Your task to perform on an android device: Add logitech g502 to the cart on amazon.com, then select checkout. Image 0: 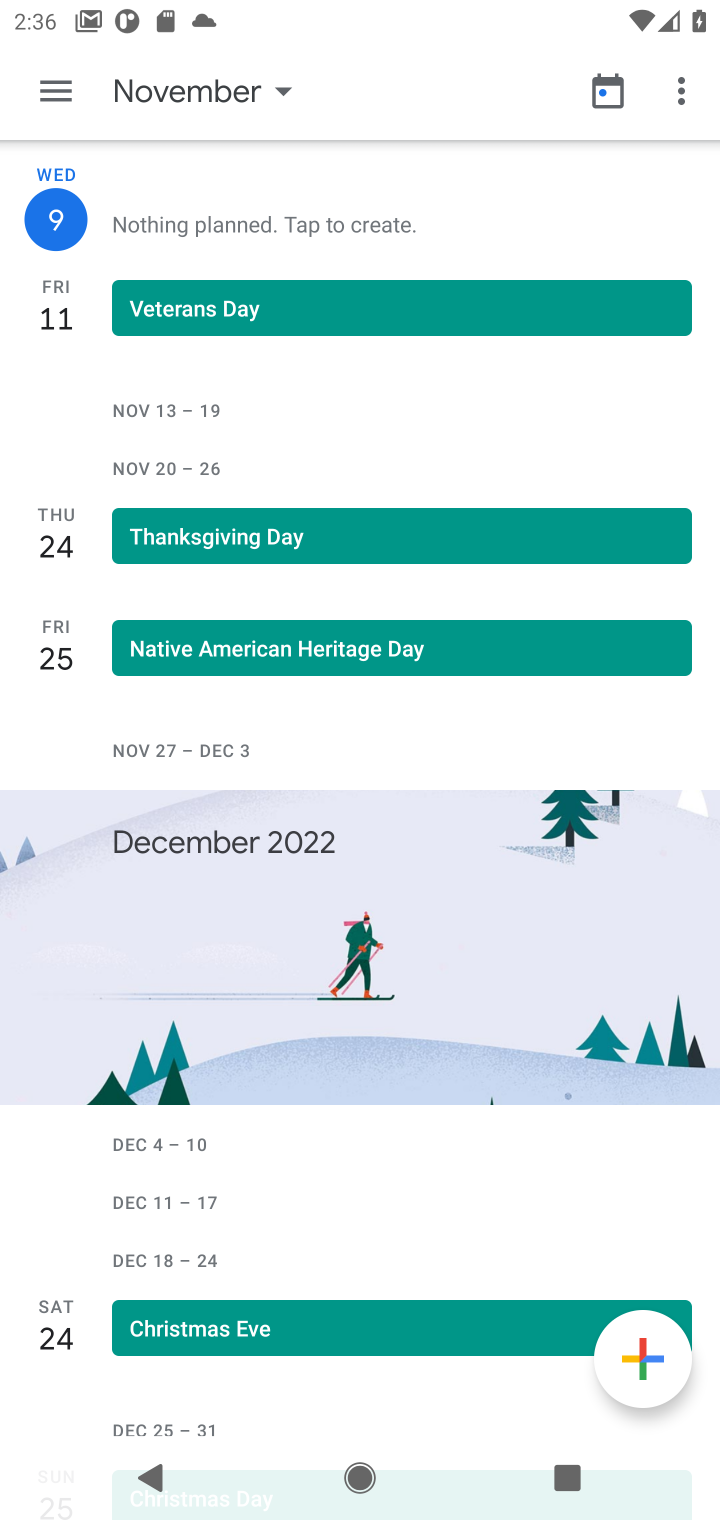
Step 0: press home button
Your task to perform on an android device: Add logitech g502 to the cart on amazon.com, then select checkout. Image 1: 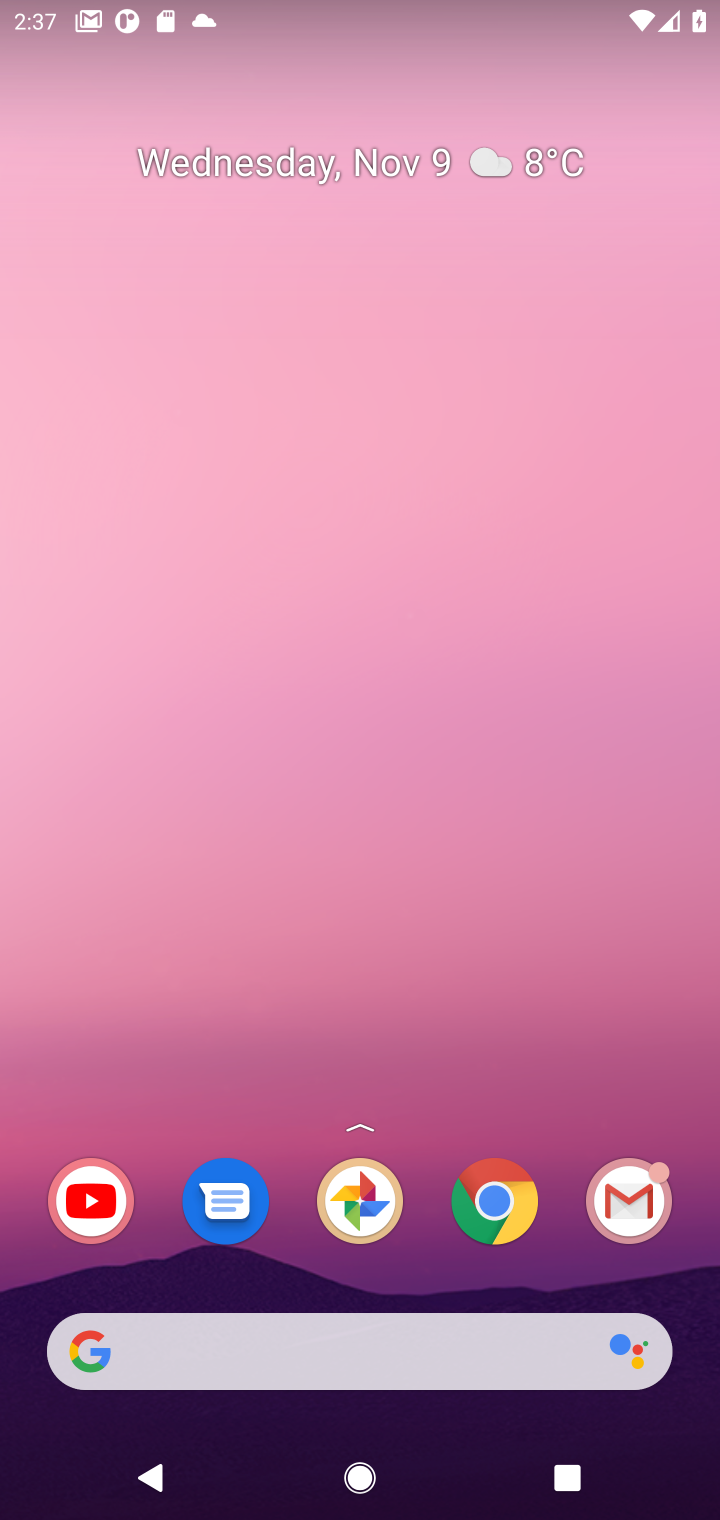
Step 1: click (354, 1333)
Your task to perform on an android device: Add logitech g502 to the cart on amazon.com, then select checkout. Image 2: 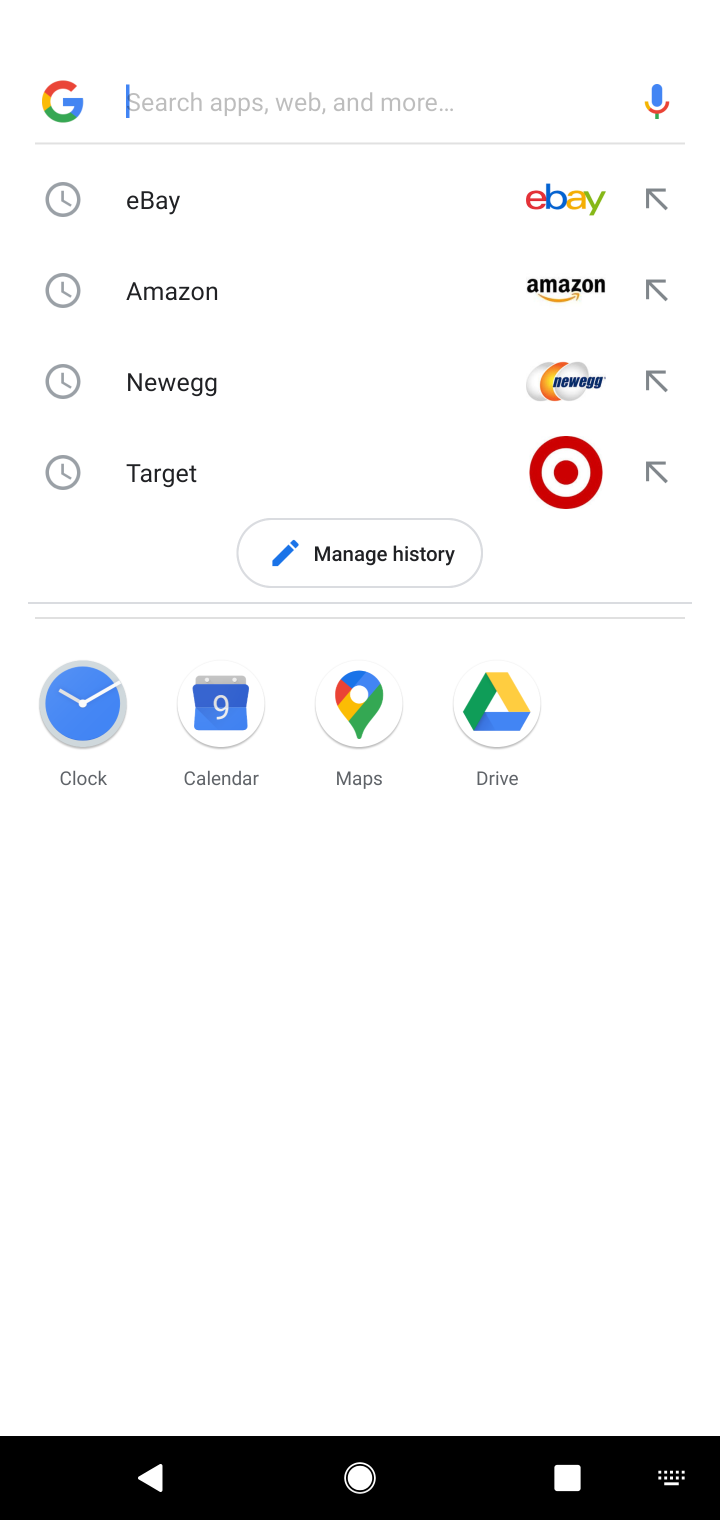
Step 2: click (450, 290)
Your task to perform on an android device: Add logitech g502 to the cart on amazon.com, then select checkout. Image 3: 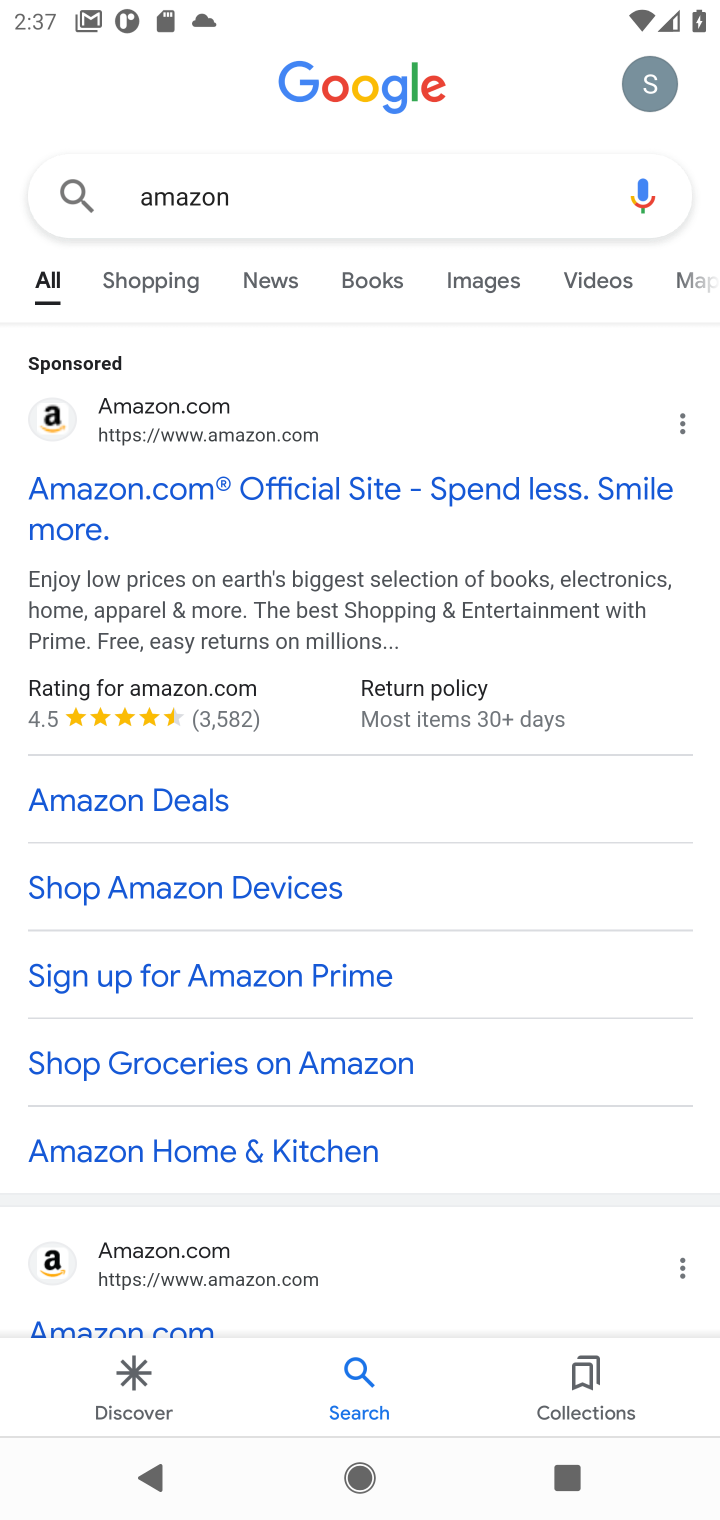
Step 3: click (123, 413)
Your task to perform on an android device: Add logitech g502 to the cart on amazon.com, then select checkout. Image 4: 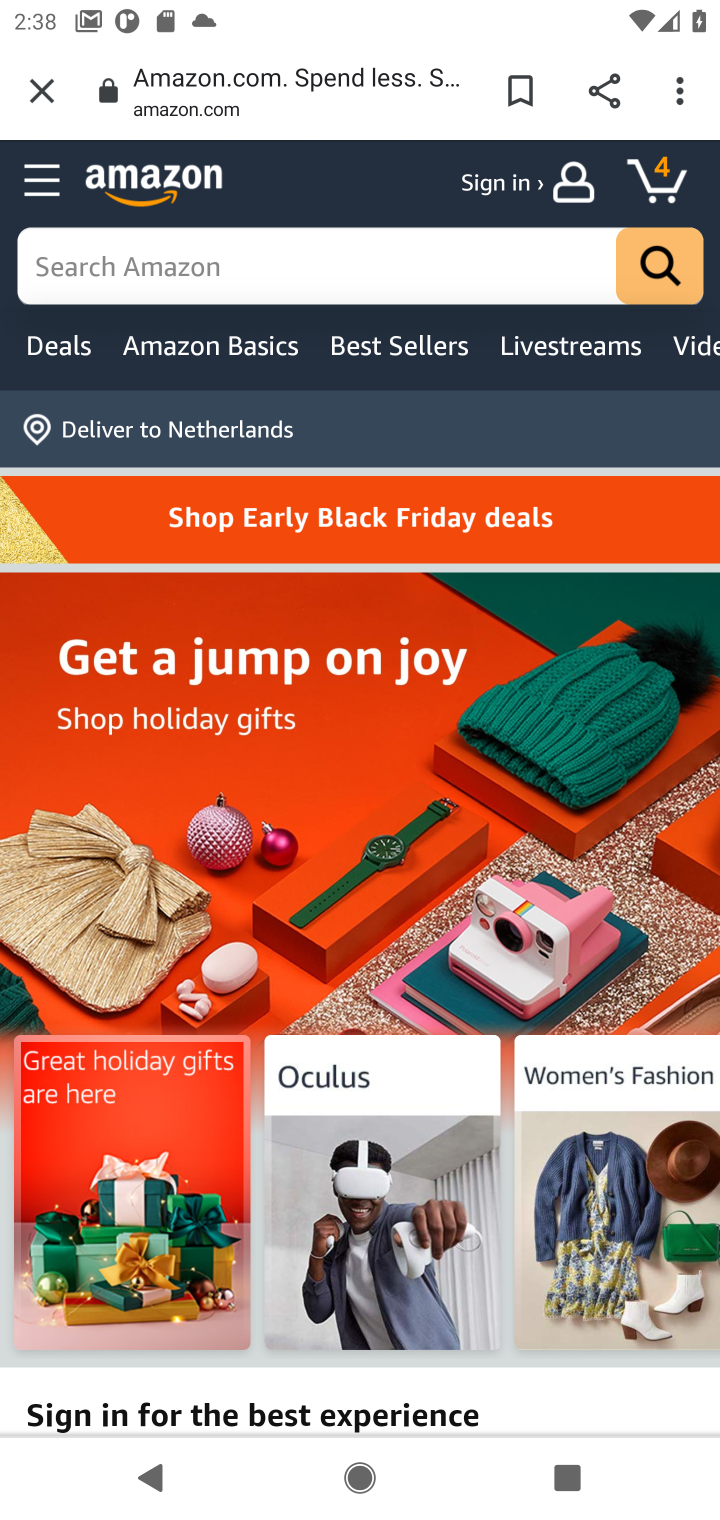
Step 4: click (329, 246)
Your task to perform on an android device: Add logitech g502 to the cart on amazon.com, then select checkout. Image 5: 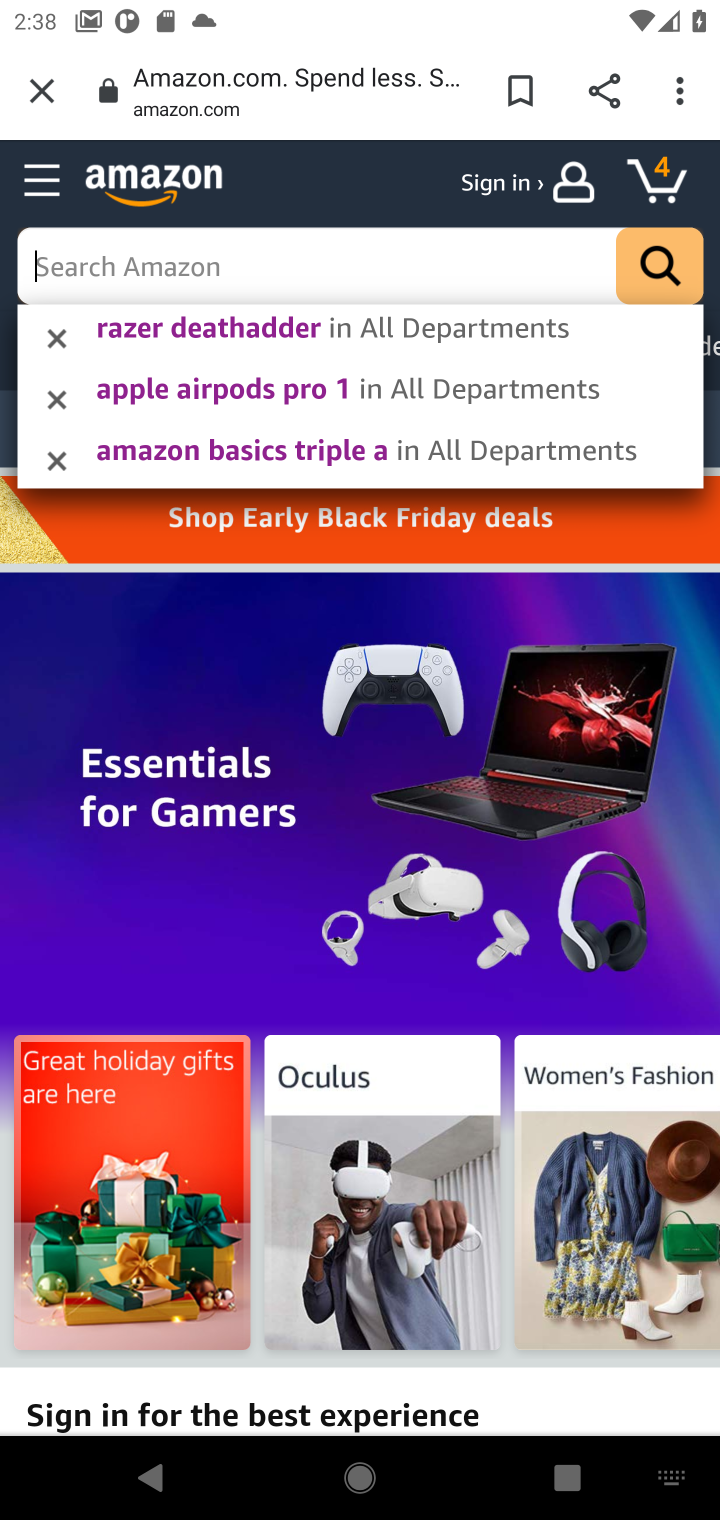
Step 5: type " logitech g502"
Your task to perform on an android device: Add logitech g502 to the cart on amazon.com, then select checkout. Image 6: 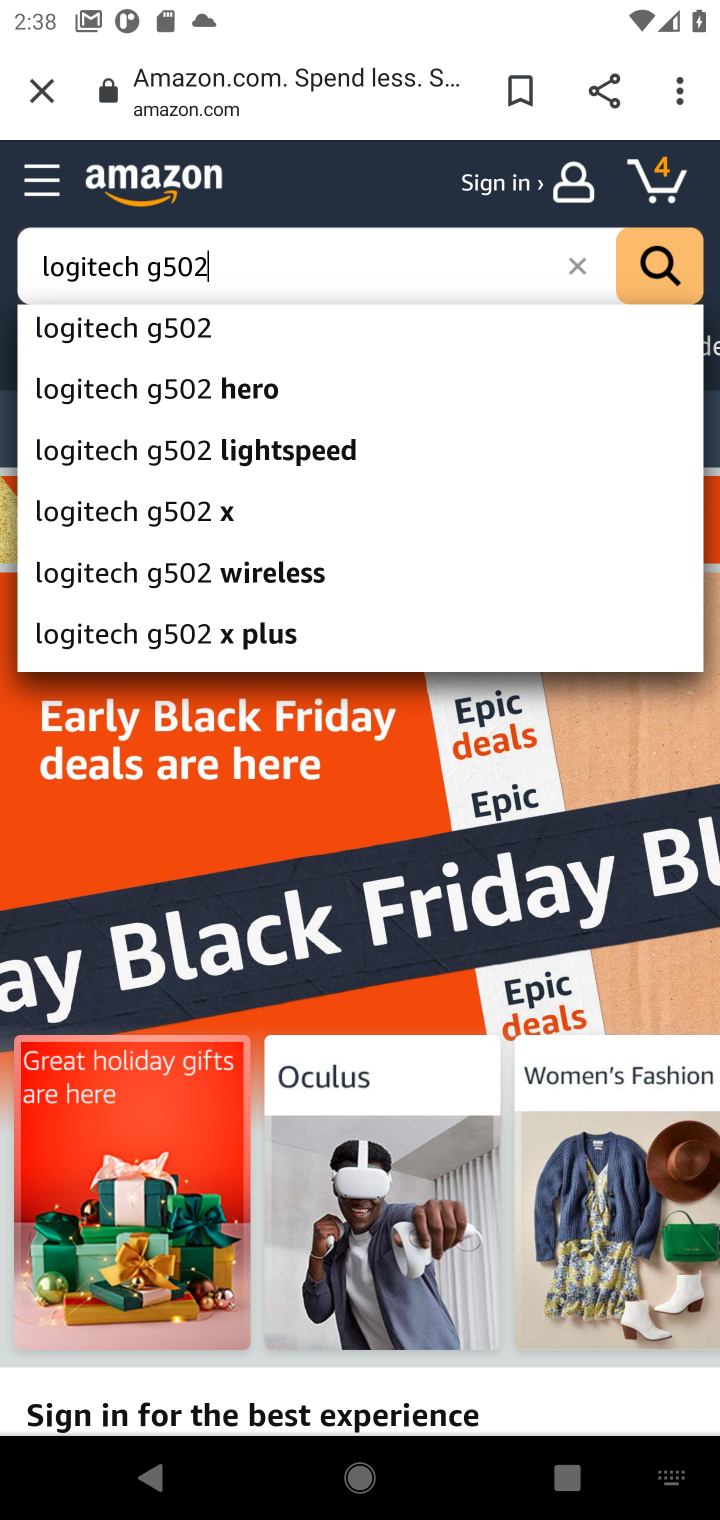
Step 6: click (186, 322)
Your task to perform on an android device: Add logitech g502 to the cart on amazon.com, then select checkout. Image 7: 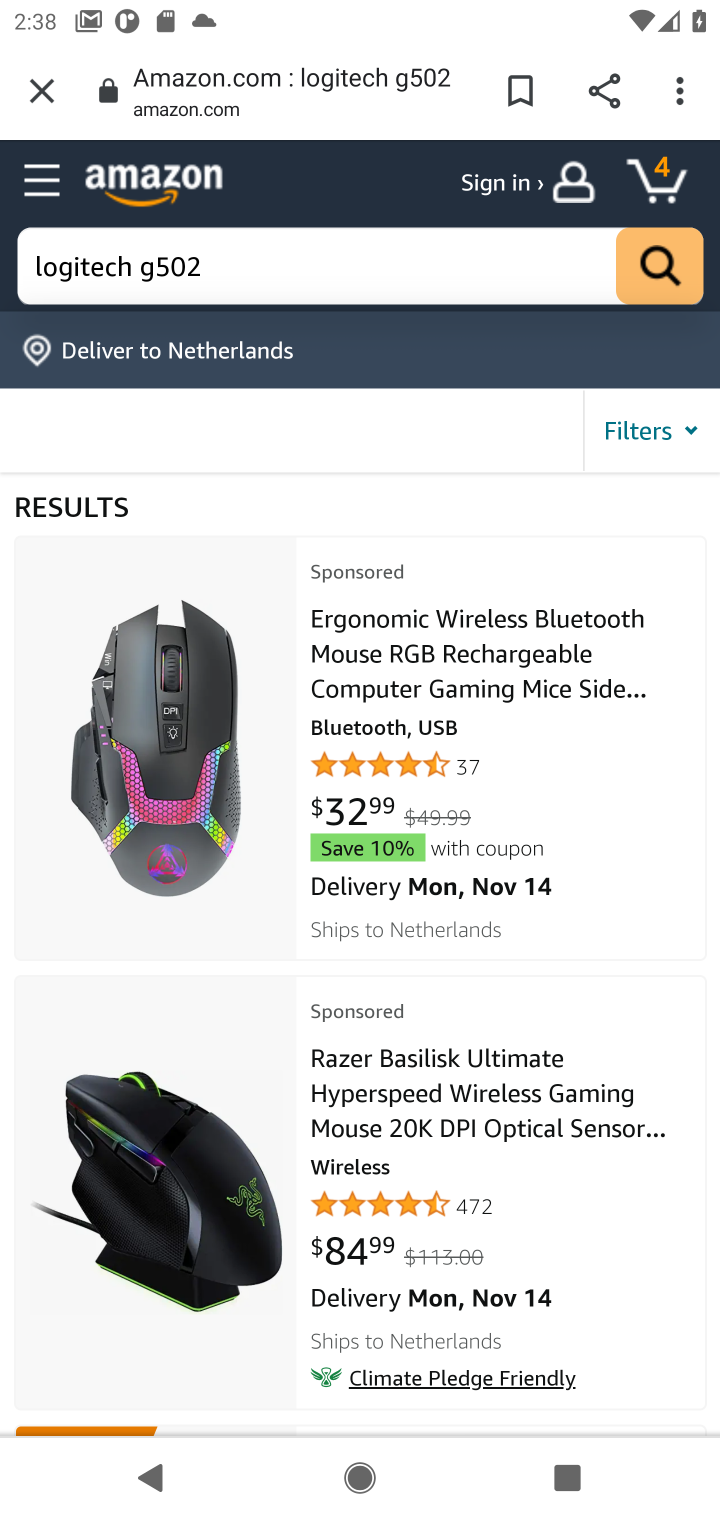
Step 7: click (245, 630)
Your task to perform on an android device: Add logitech g502 to the cart on amazon.com, then select checkout. Image 8: 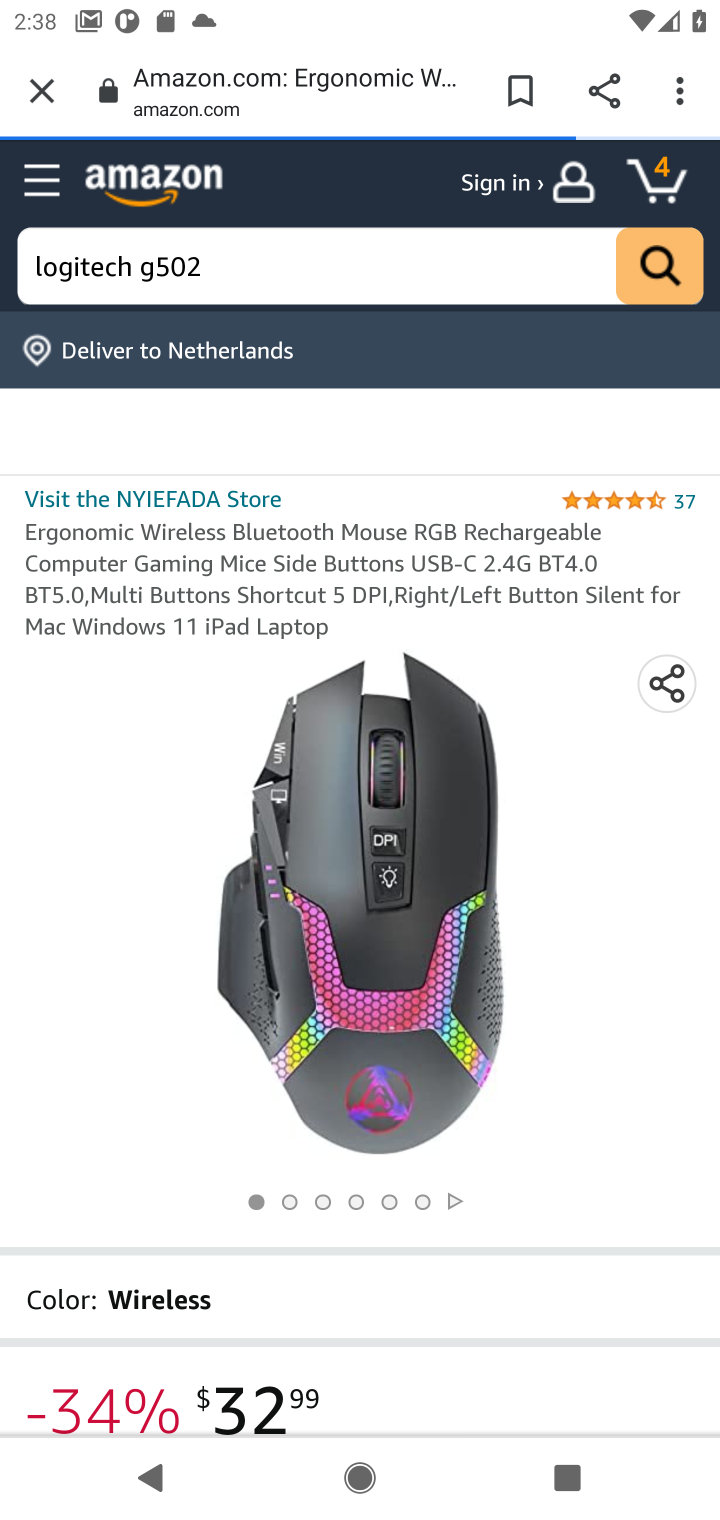
Step 8: drag from (381, 1016) to (405, 672)
Your task to perform on an android device: Add logitech g502 to the cart on amazon.com, then select checkout. Image 9: 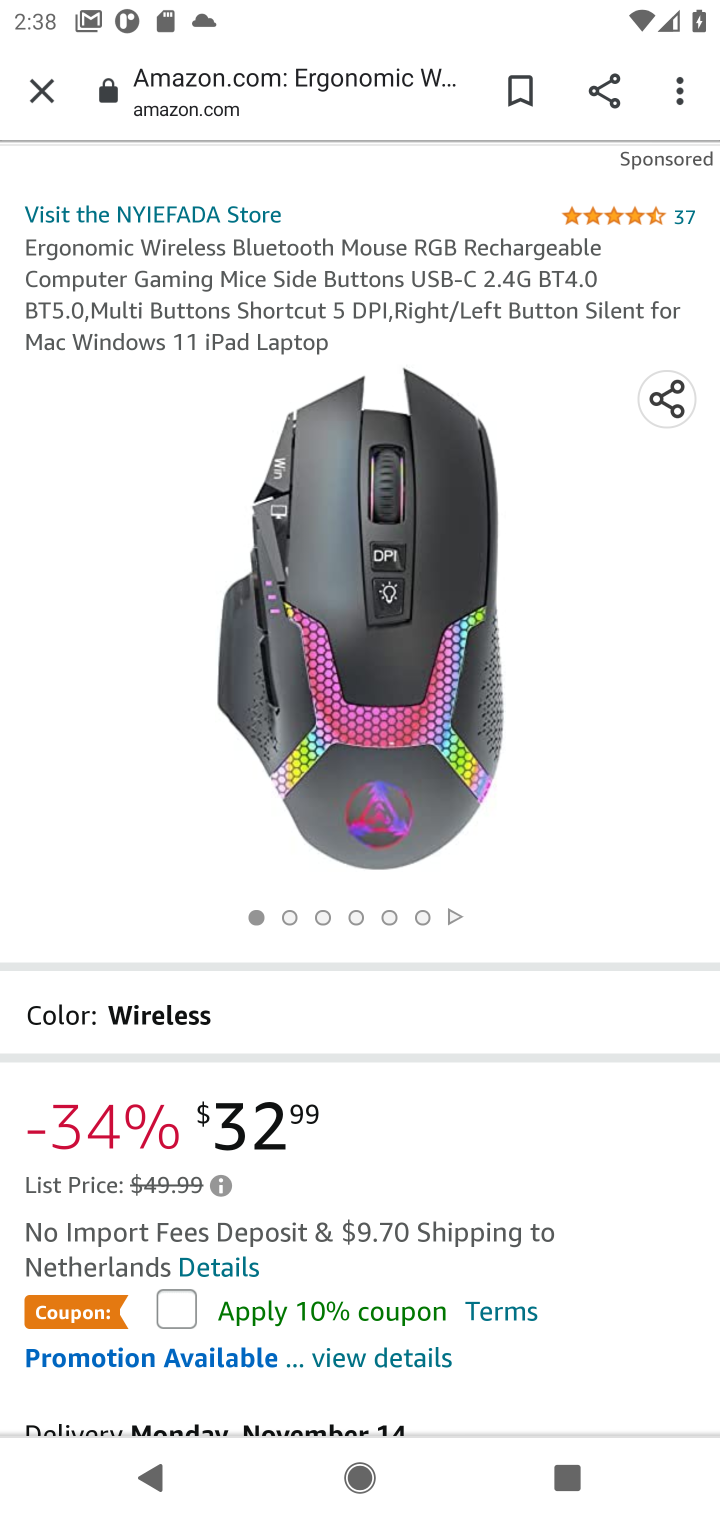
Step 9: drag from (303, 945) to (303, 569)
Your task to perform on an android device: Add logitech g502 to the cart on amazon.com, then select checkout. Image 10: 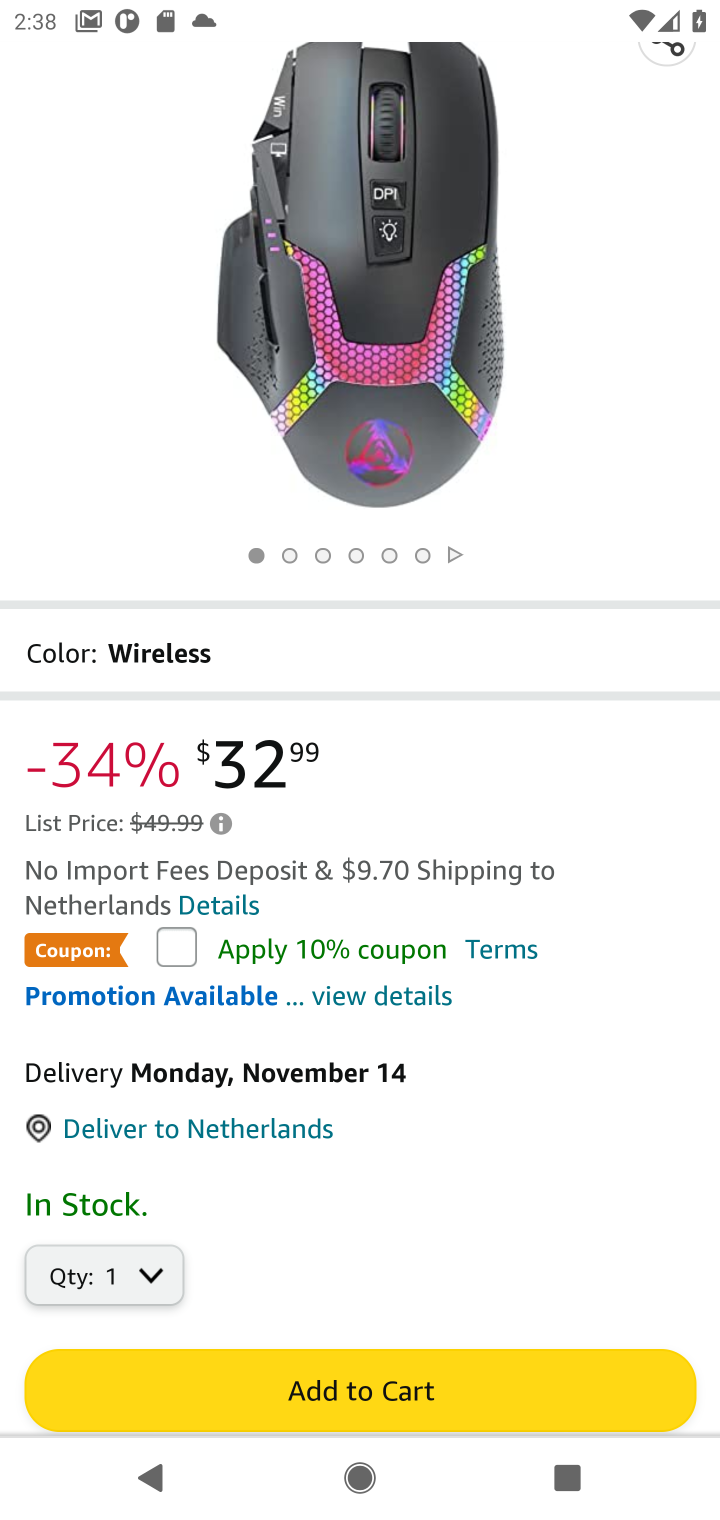
Step 10: click (381, 1392)
Your task to perform on an android device: Add logitech g502 to the cart on amazon.com, then select checkout. Image 11: 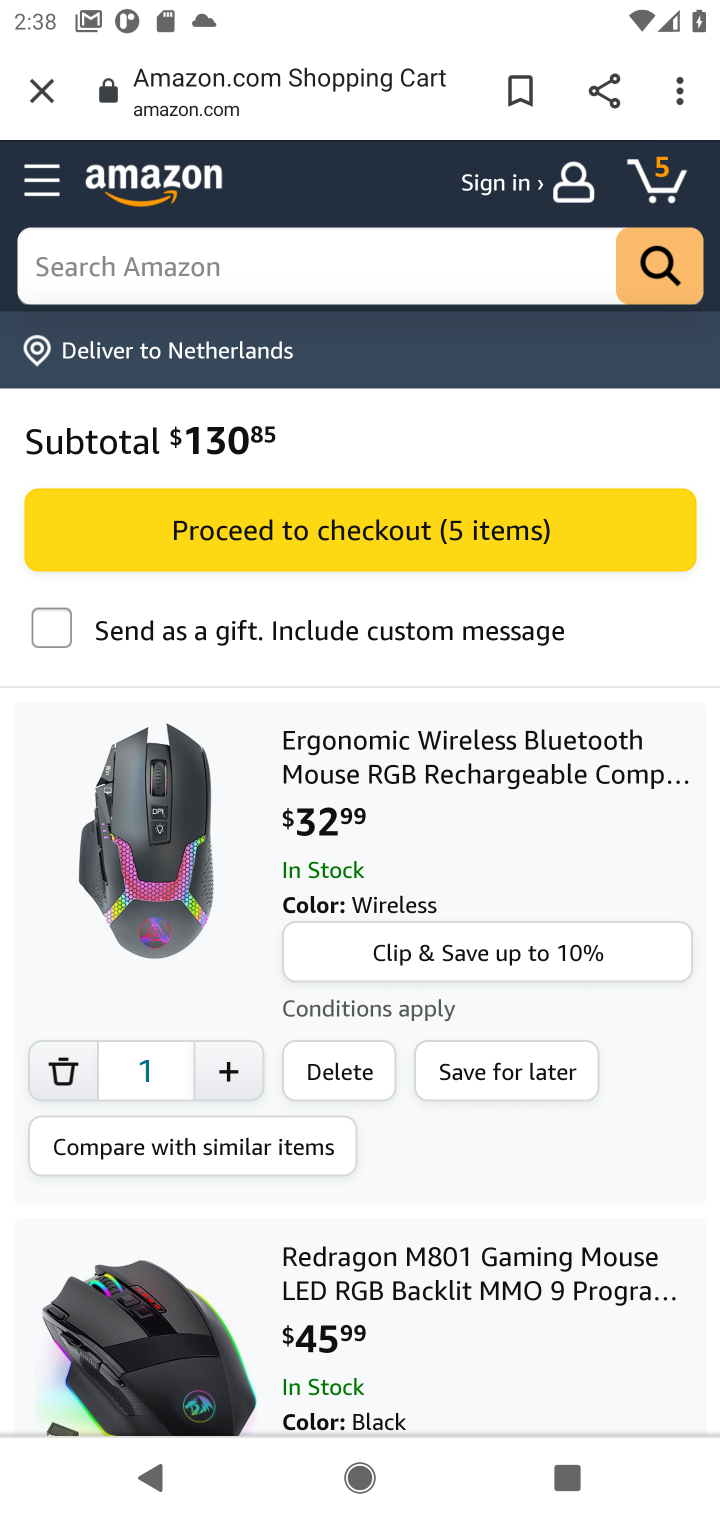
Step 11: click (406, 528)
Your task to perform on an android device: Add logitech g502 to the cart on amazon.com, then select checkout. Image 12: 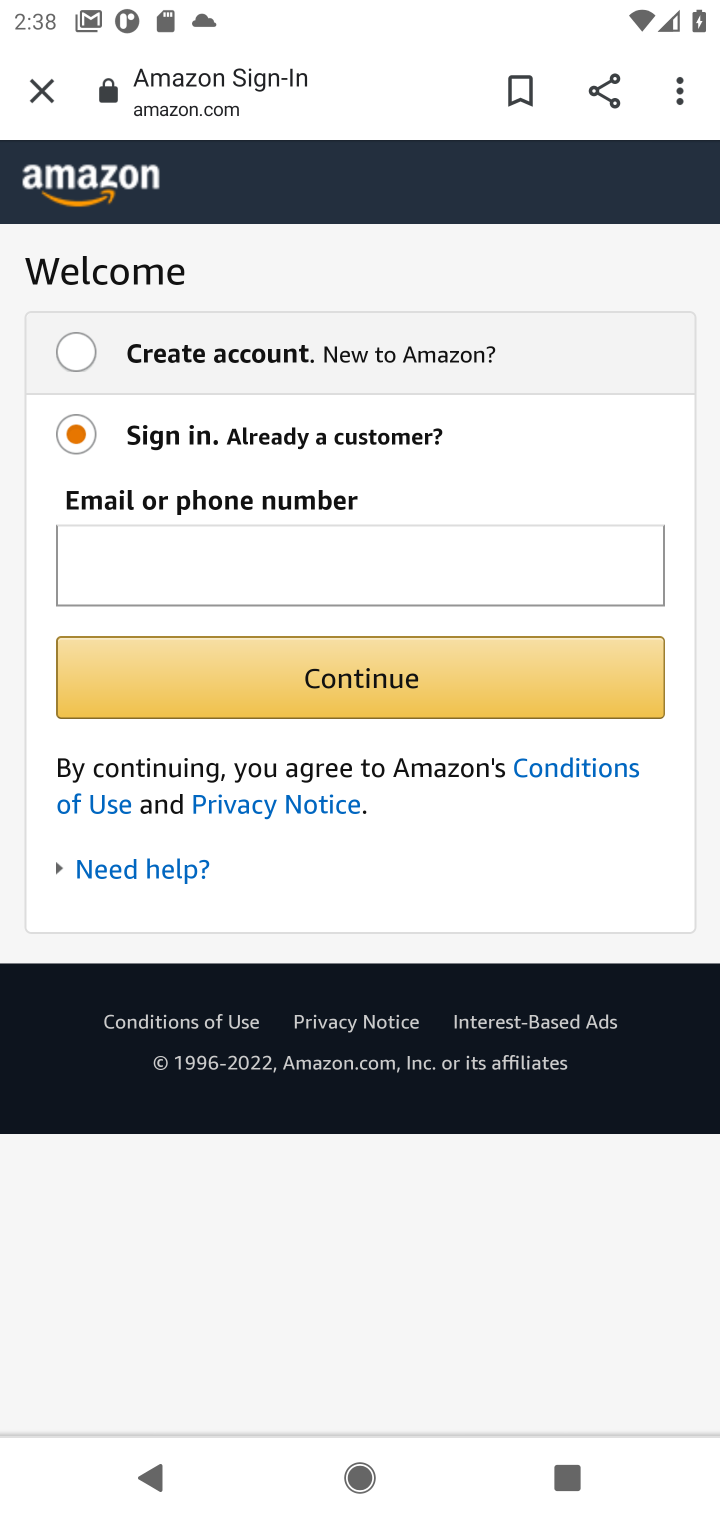
Step 12: task complete